Your task to perform on an android device: remove spam from my inbox in the gmail app Image 0: 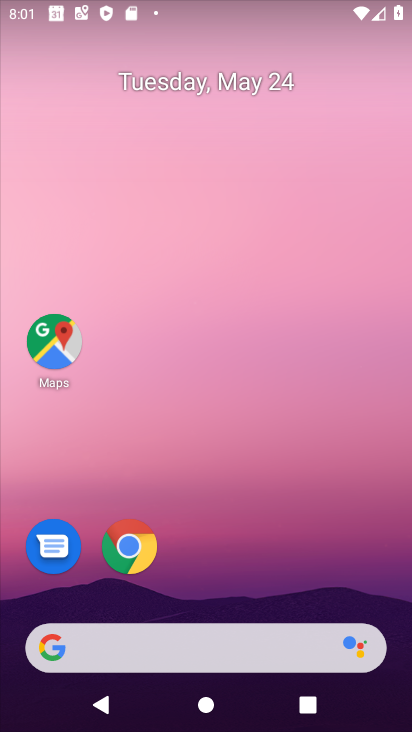
Step 0: drag from (277, 530) to (344, 8)
Your task to perform on an android device: remove spam from my inbox in the gmail app Image 1: 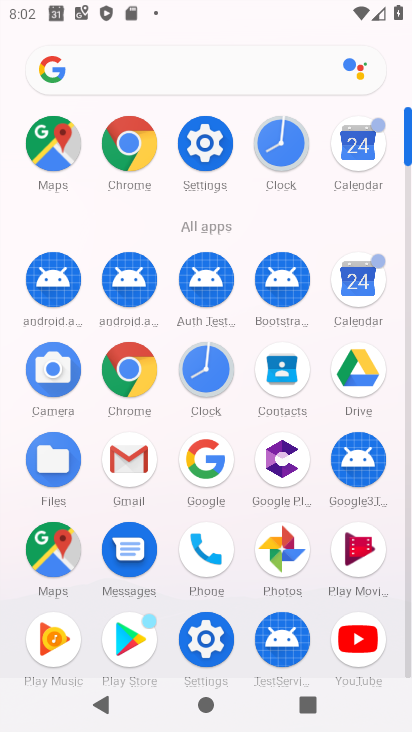
Step 1: click (130, 460)
Your task to perform on an android device: remove spam from my inbox in the gmail app Image 2: 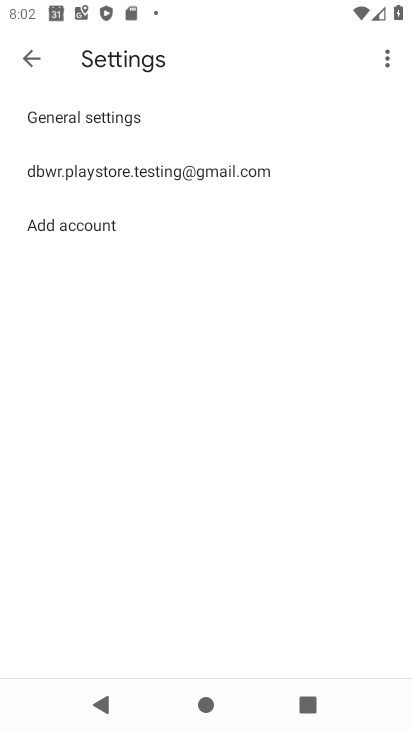
Step 2: click (40, 55)
Your task to perform on an android device: remove spam from my inbox in the gmail app Image 3: 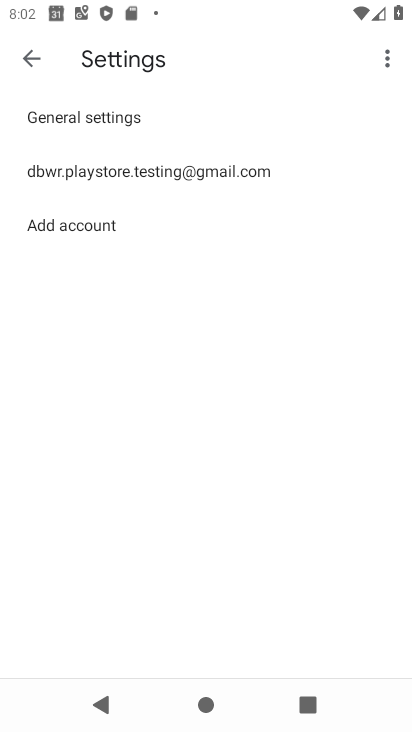
Step 3: click (34, 57)
Your task to perform on an android device: remove spam from my inbox in the gmail app Image 4: 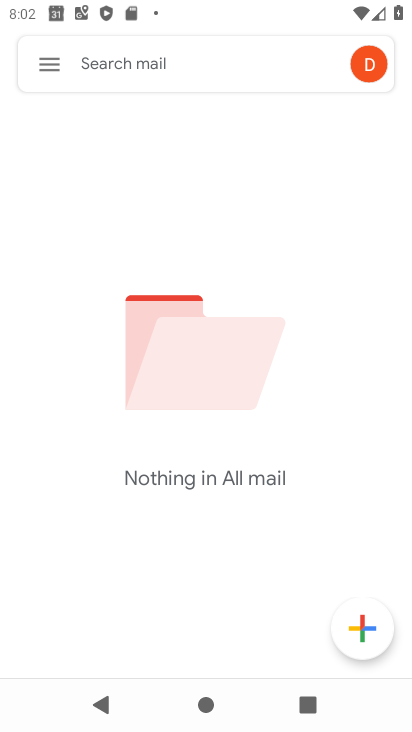
Step 4: click (47, 56)
Your task to perform on an android device: remove spam from my inbox in the gmail app Image 5: 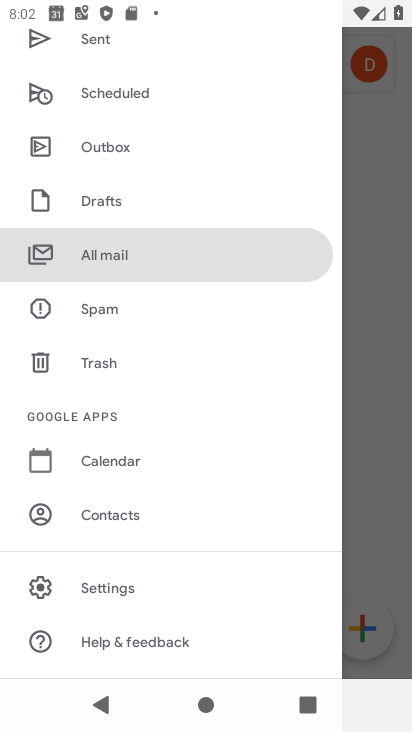
Step 5: click (138, 293)
Your task to perform on an android device: remove spam from my inbox in the gmail app Image 6: 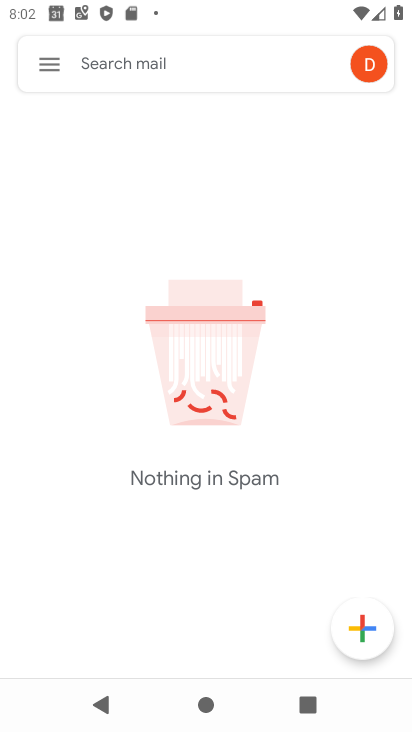
Step 6: task complete